Your task to perform on an android device: turn off translation in the chrome app Image 0: 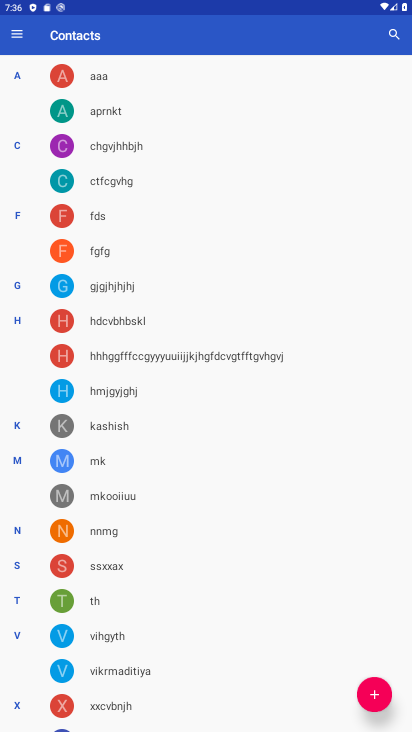
Step 0: press home button
Your task to perform on an android device: turn off translation in the chrome app Image 1: 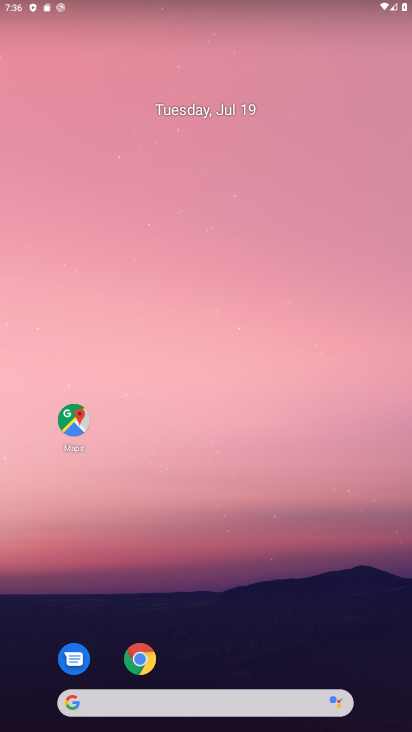
Step 1: click (137, 662)
Your task to perform on an android device: turn off translation in the chrome app Image 2: 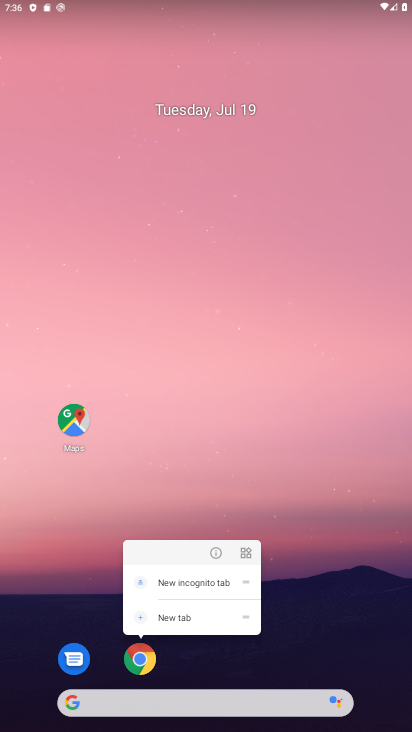
Step 2: click (133, 652)
Your task to perform on an android device: turn off translation in the chrome app Image 3: 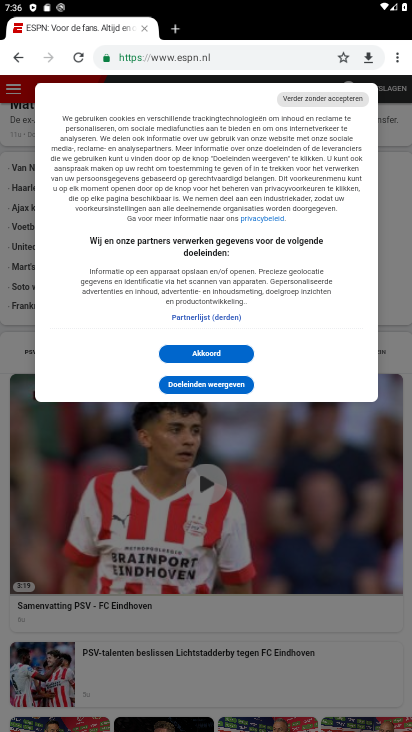
Step 3: click (398, 59)
Your task to perform on an android device: turn off translation in the chrome app Image 4: 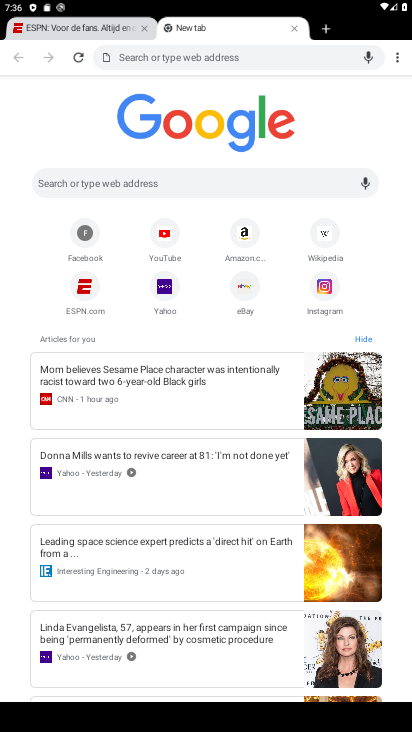
Step 4: click (397, 59)
Your task to perform on an android device: turn off translation in the chrome app Image 5: 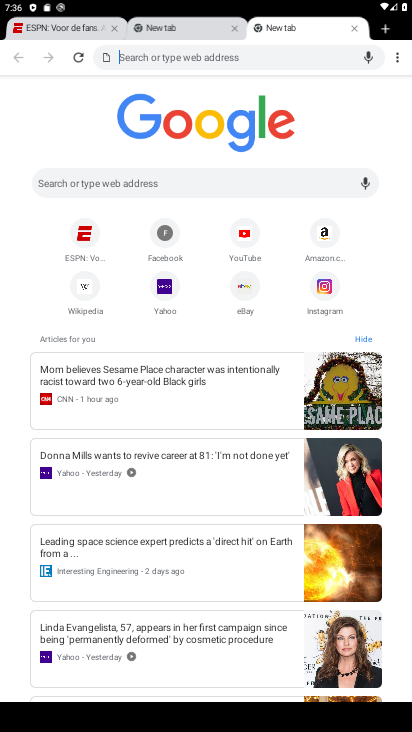
Step 5: click (397, 59)
Your task to perform on an android device: turn off translation in the chrome app Image 6: 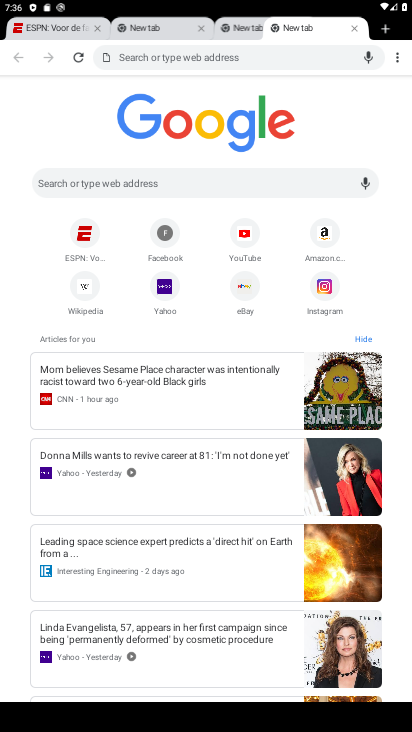
Step 6: click (354, 29)
Your task to perform on an android device: turn off translation in the chrome app Image 7: 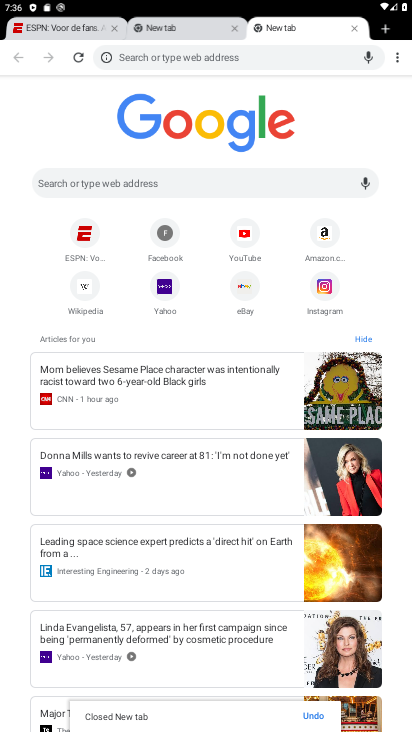
Step 7: click (357, 27)
Your task to perform on an android device: turn off translation in the chrome app Image 8: 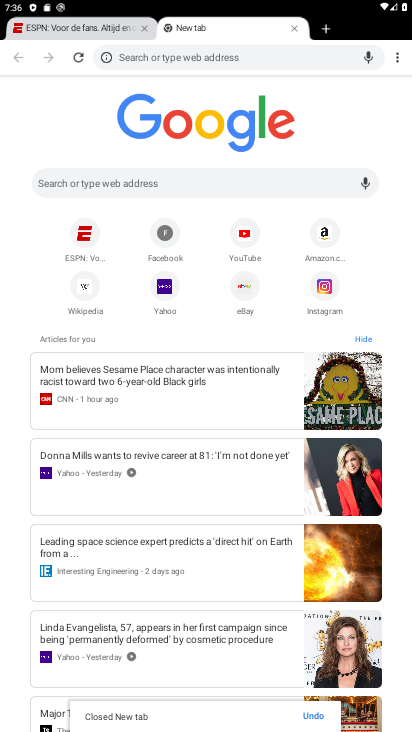
Step 8: click (291, 24)
Your task to perform on an android device: turn off translation in the chrome app Image 9: 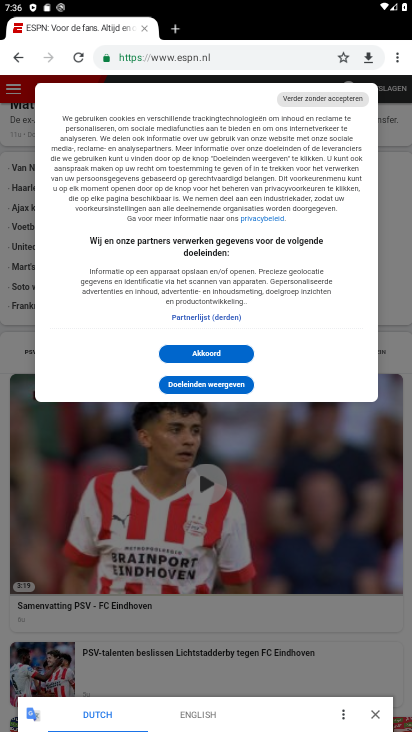
Step 9: click (399, 60)
Your task to perform on an android device: turn off translation in the chrome app Image 10: 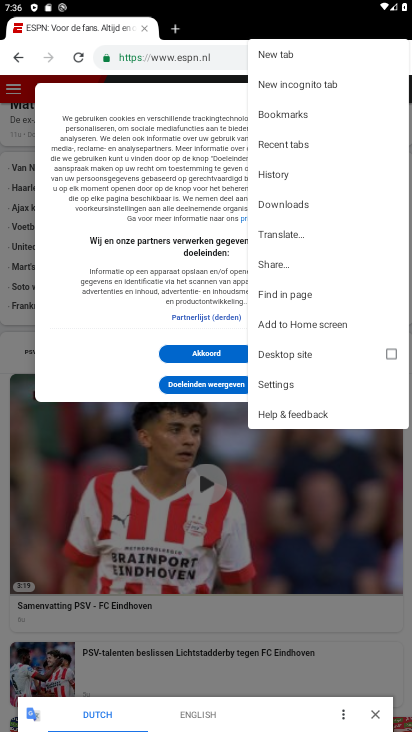
Step 10: click (288, 386)
Your task to perform on an android device: turn off translation in the chrome app Image 11: 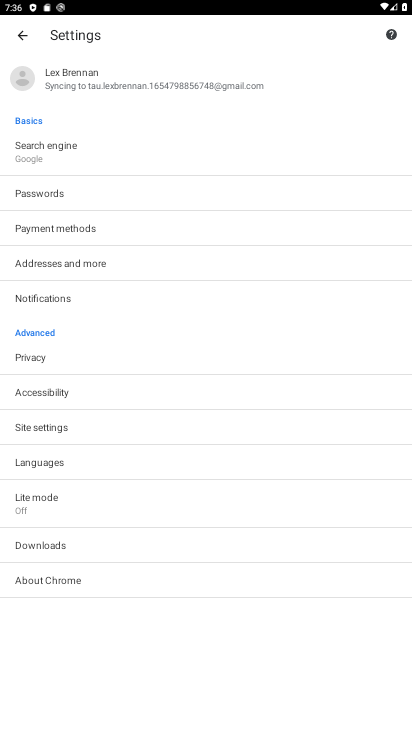
Step 11: click (40, 464)
Your task to perform on an android device: turn off translation in the chrome app Image 12: 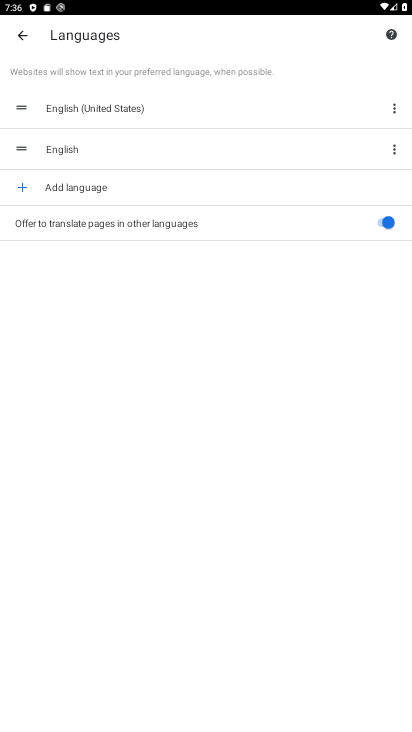
Step 12: click (383, 222)
Your task to perform on an android device: turn off translation in the chrome app Image 13: 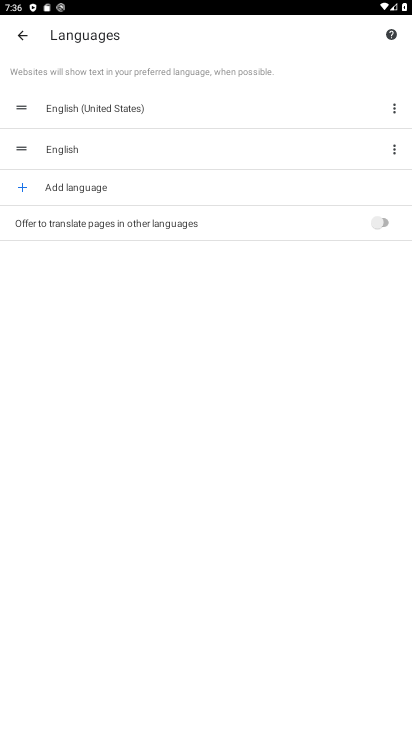
Step 13: task complete